Your task to perform on an android device: Open Chrome and go to the settings page Image 0: 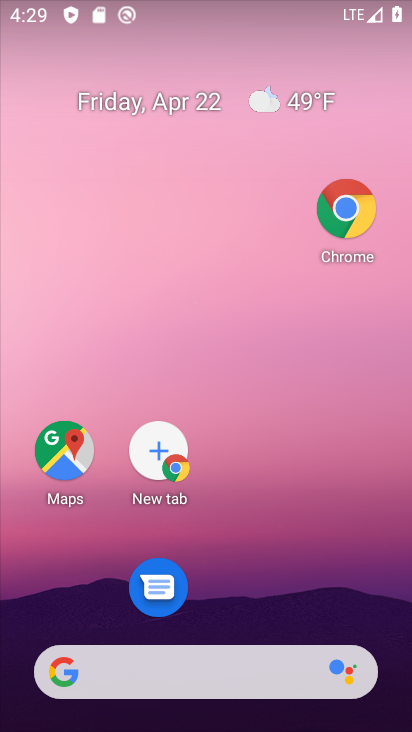
Step 0: click (348, 211)
Your task to perform on an android device: Open Chrome and go to the settings page Image 1: 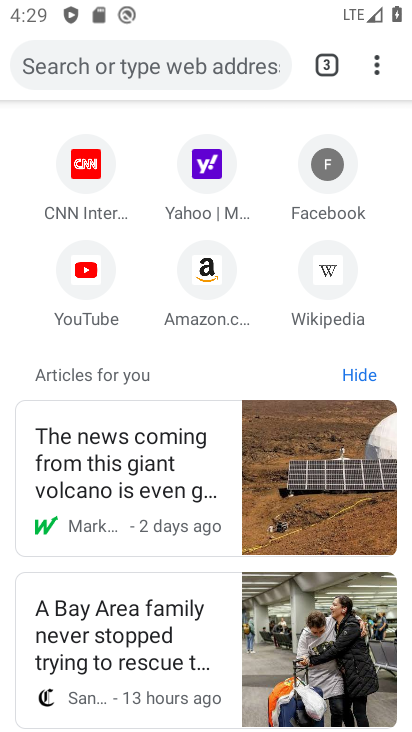
Step 1: click (376, 77)
Your task to perform on an android device: Open Chrome and go to the settings page Image 2: 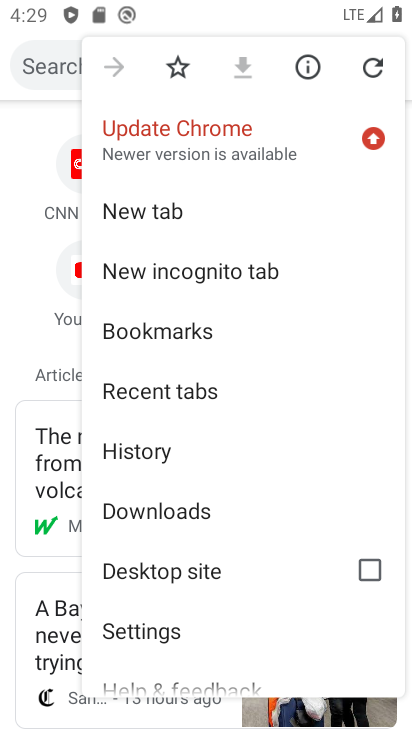
Step 2: click (169, 628)
Your task to perform on an android device: Open Chrome and go to the settings page Image 3: 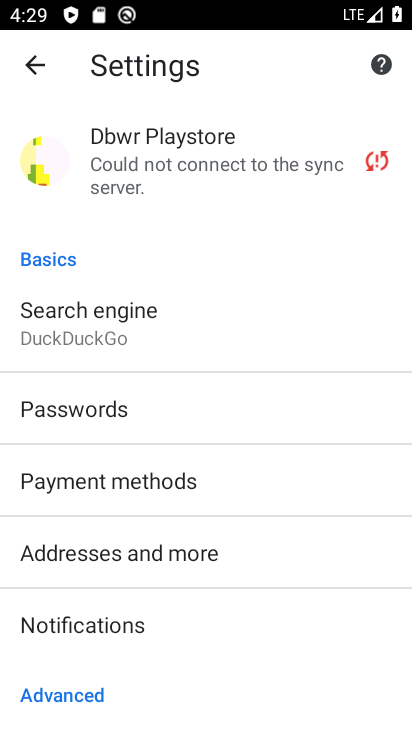
Step 3: task complete